Your task to perform on an android device: turn on wifi Image 0: 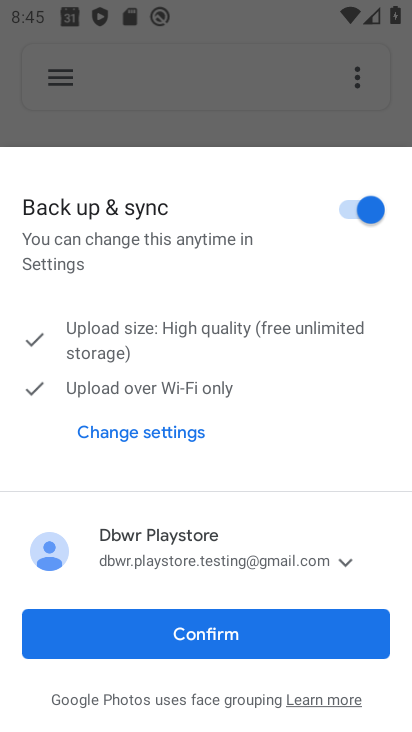
Step 0: press home button
Your task to perform on an android device: turn on wifi Image 1: 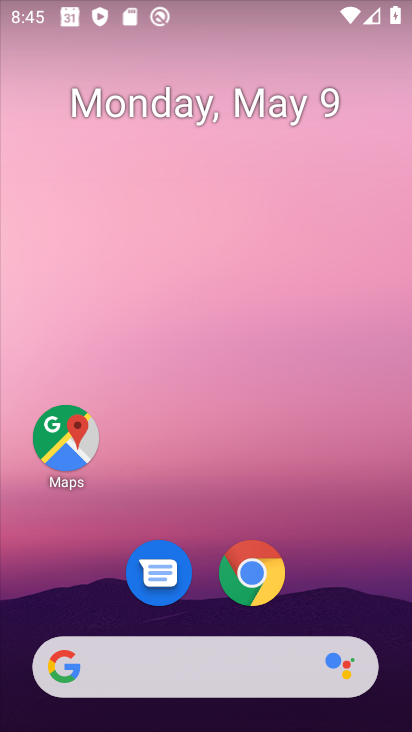
Step 1: drag from (342, 601) to (340, 119)
Your task to perform on an android device: turn on wifi Image 2: 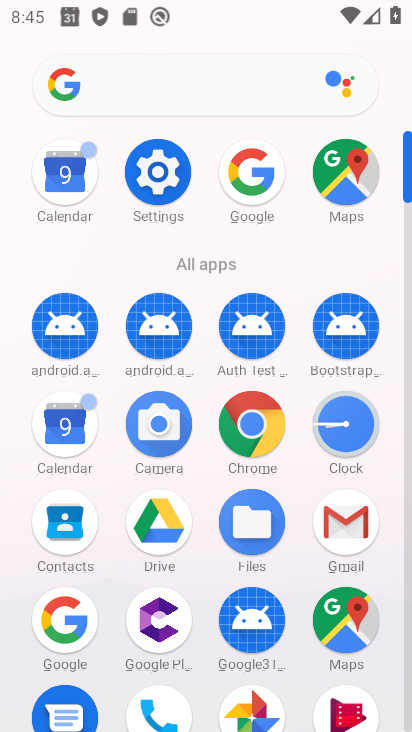
Step 2: click (153, 175)
Your task to perform on an android device: turn on wifi Image 3: 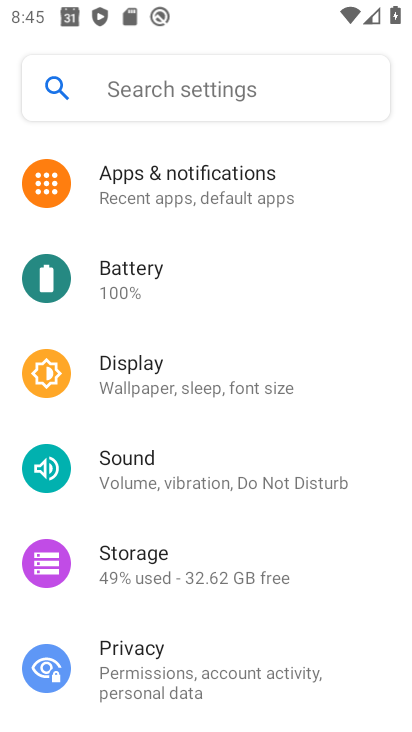
Step 3: drag from (168, 215) to (243, 384)
Your task to perform on an android device: turn on wifi Image 4: 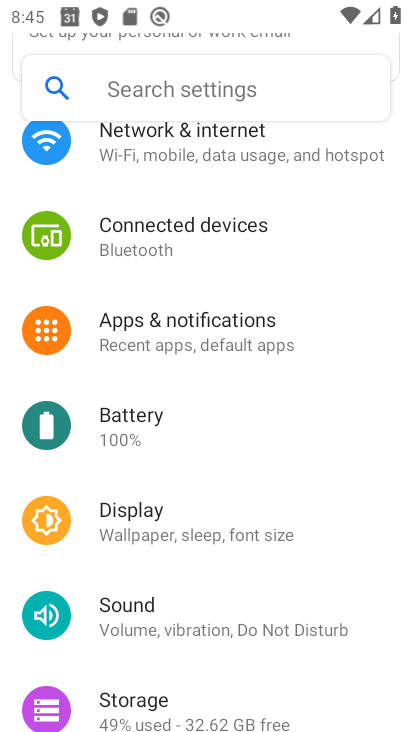
Step 4: drag from (216, 267) to (254, 465)
Your task to perform on an android device: turn on wifi Image 5: 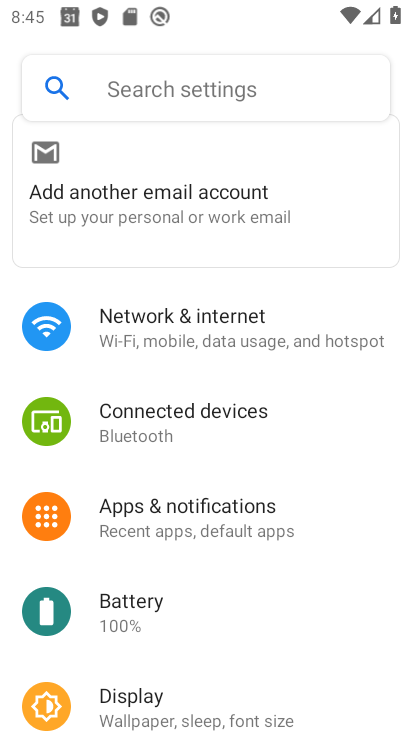
Step 5: click (211, 316)
Your task to perform on an android device: turn on wifi Image 6: 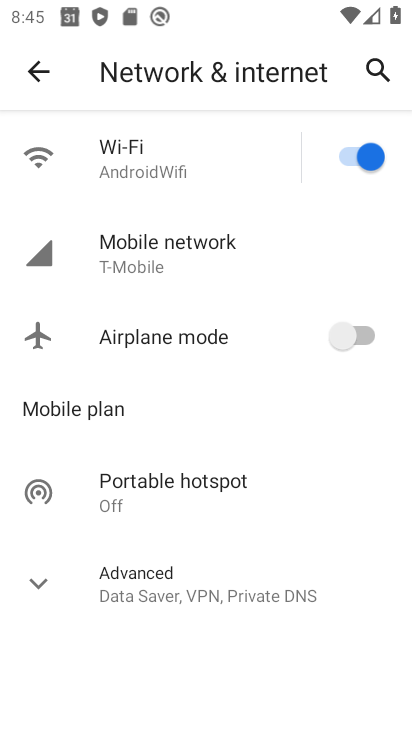
Step 6: task complete